Your task to perform on an android device: Open Yahoo.com Image 0: 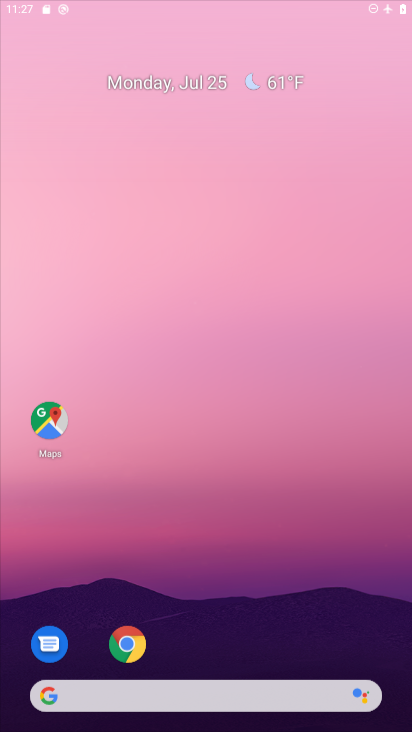
Step 0: click (261, 113)
Your task to perform on an android device: Open Yahoo.com Image 1: 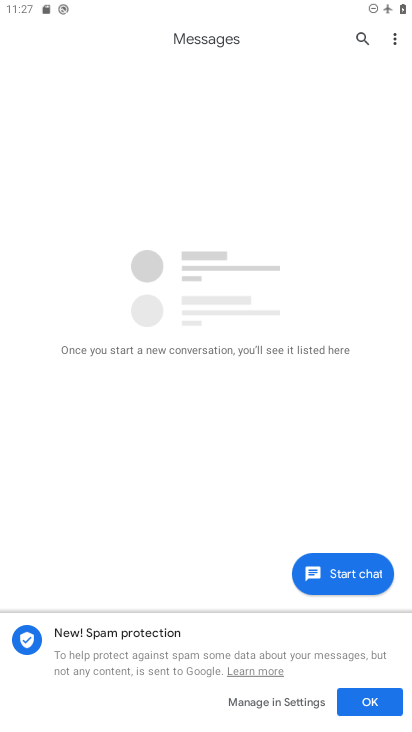
Step 1: press home button
Your task to perform on an android device: Open Yahoo.com Image 2: 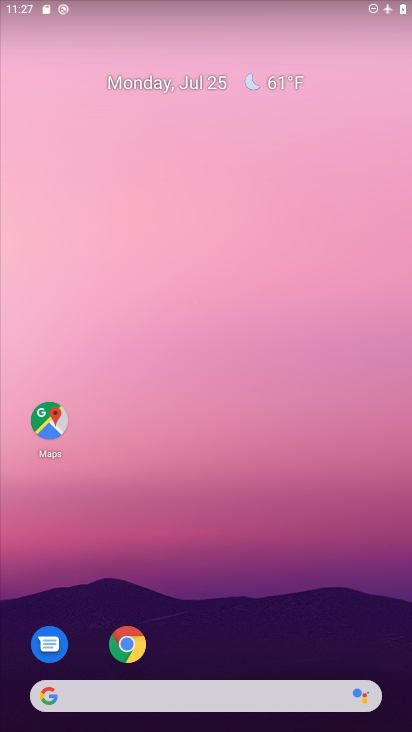
Step 2: click (118, 643)
Your task to perform on an android device: Open Yahoo.com Image 3: 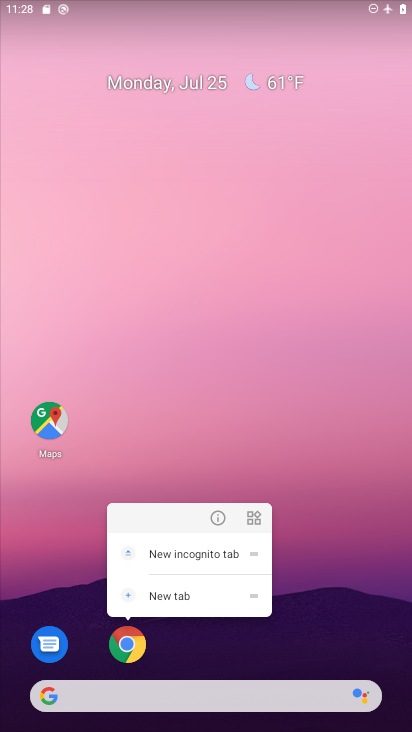
Step 3: click (120, 641)
Your task to perform on an android device: Open Yahoo.com Image 4: 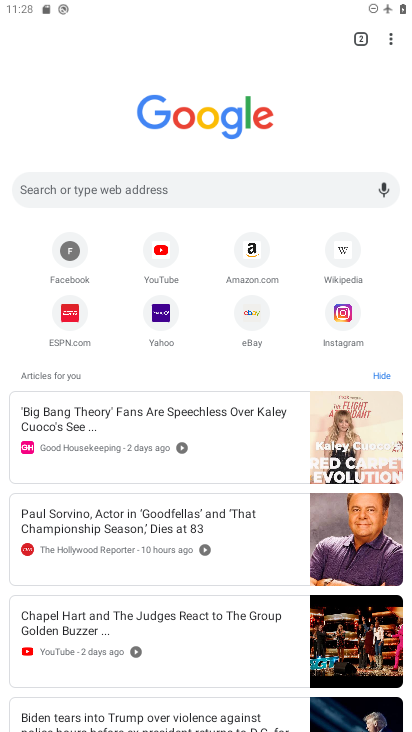
Step 4: click (166, 318)
Your task to perform on an android device: Open Yahoo.com Image 5: 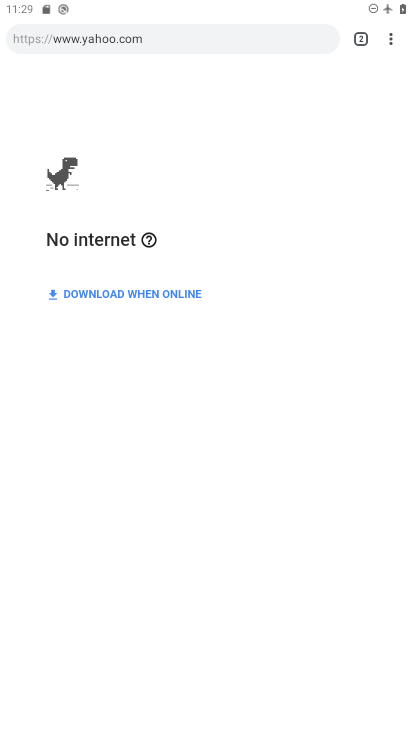
Step 5: task complete